Your task to perform on an android device: Is it going to rain tomorrow? Image 0: 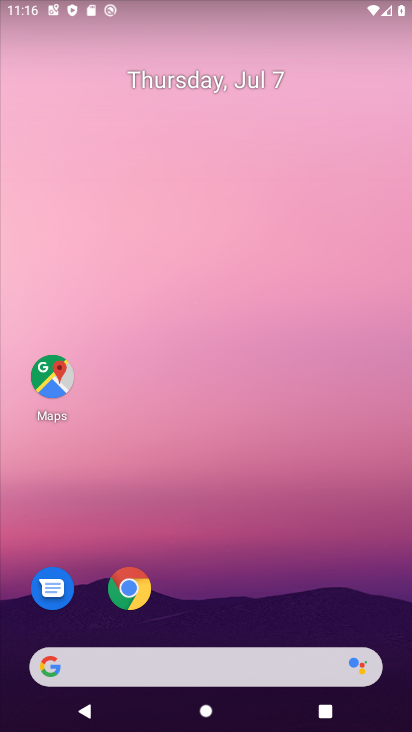
Step 0: drag from (220, 617) to (214, 116)
Your task to perform on an android device: Is it going to rain tomorrow? Image 1: 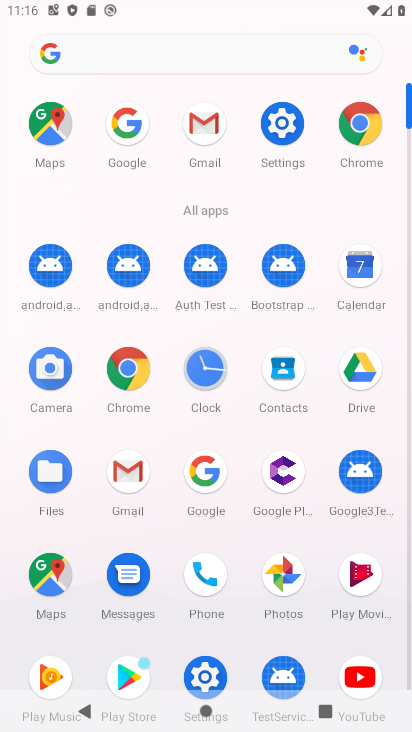
Step 1: click (207, 468)
Your task to perform on an android device: Is it going to rain tomorrow? Image 2: 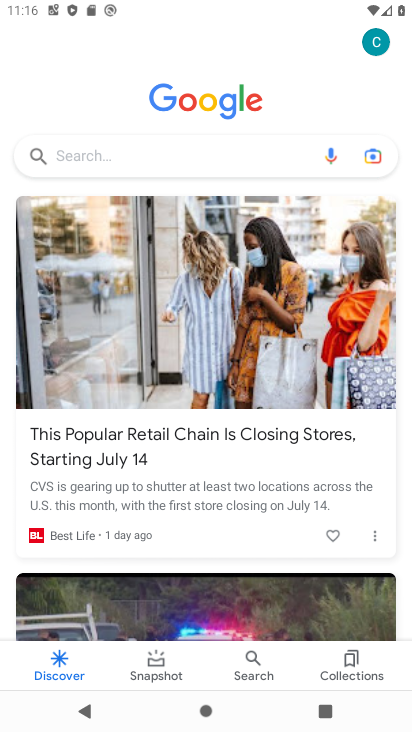
Step 2: click (149, 154)
Your task to perform on an android device: Is it going to rain tomorrow? Image 3: 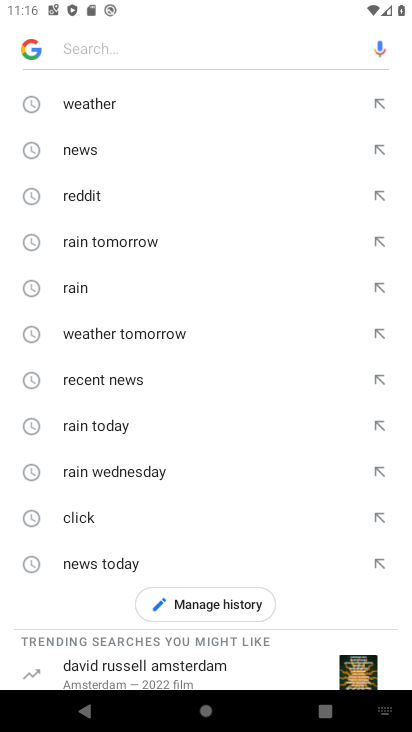
Step 3: click (151, 252)
Your task to perform on an android device: Is it going to rain tomorrow? Image 4: 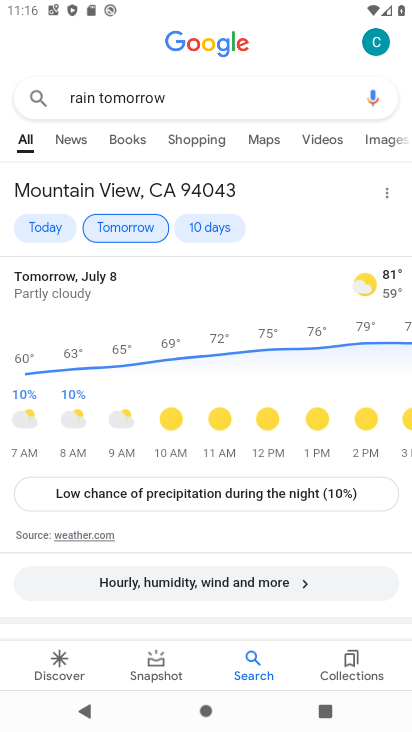
Step 4: task complete